Your task to perform on an android device: turn notification dots on Image 0: 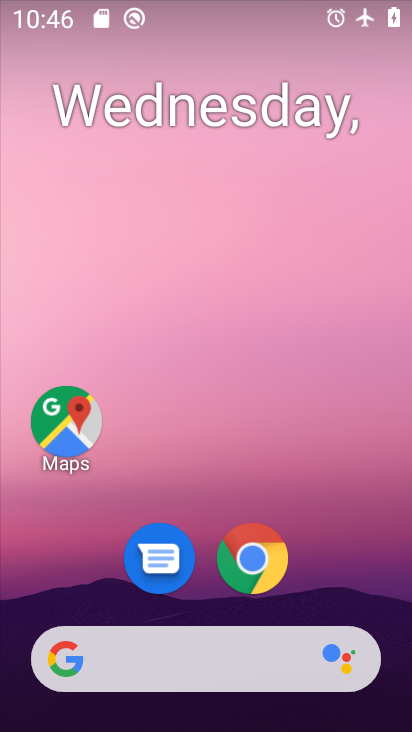
Step 0: drag from (356, 568) to (346, 119)
Your task to perform on an android device: turn notification dots on Image 1: 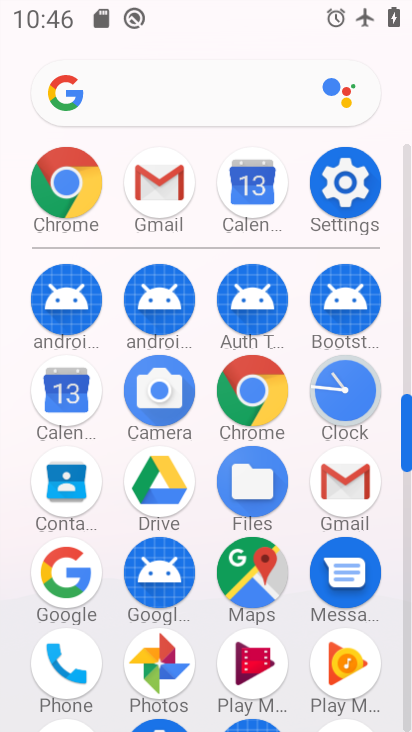
Step 1: click (365, 213)
Your task to perform on an android device: turn notification dots on Image 2: 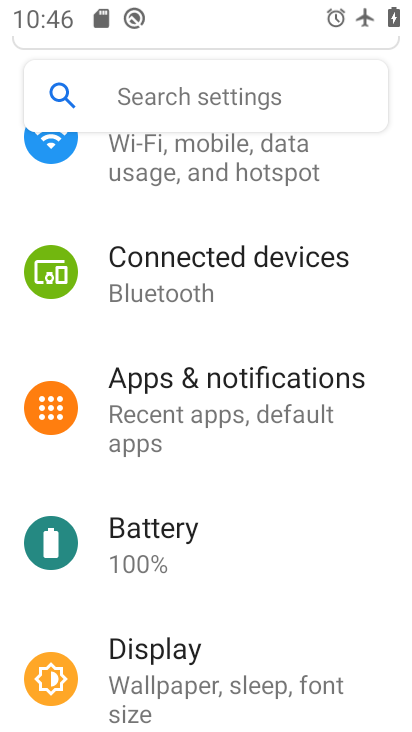
Step 2: drag from (378, 439) to (380, 340)
Your task to perform on an android device: turn notification dots on Image 3: 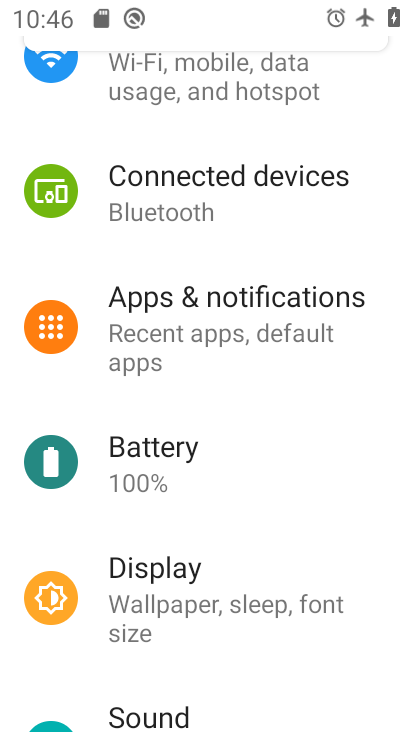
Step 3: drag from (338, 474) to (340, 287)
Your task to perform on an android device: turn notification dots on Image 4: 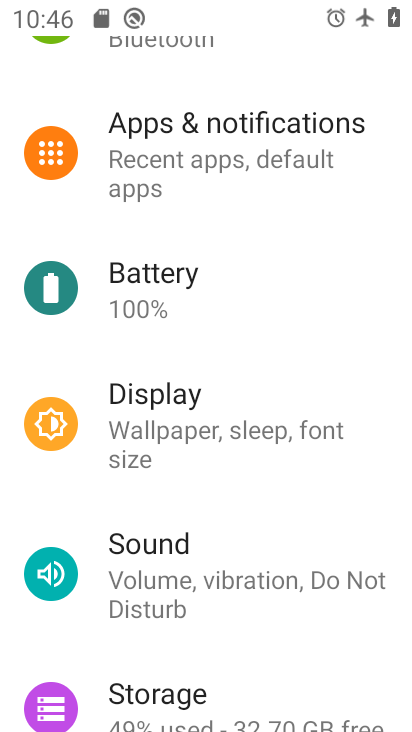
Step 4: drag from (354, 482) to (355, 313)
Your task to perform on an android device: turn notification dots on Image 5: 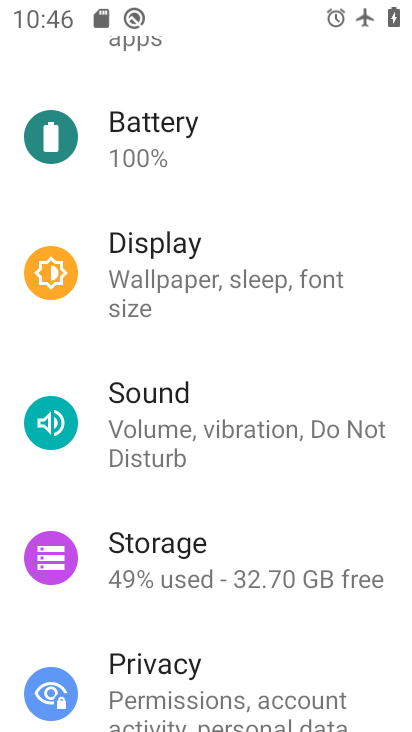
Step 5: drag from (349, 219) to (348, 341)
Your task to perform on an android device: turn notification dots on Image 6: 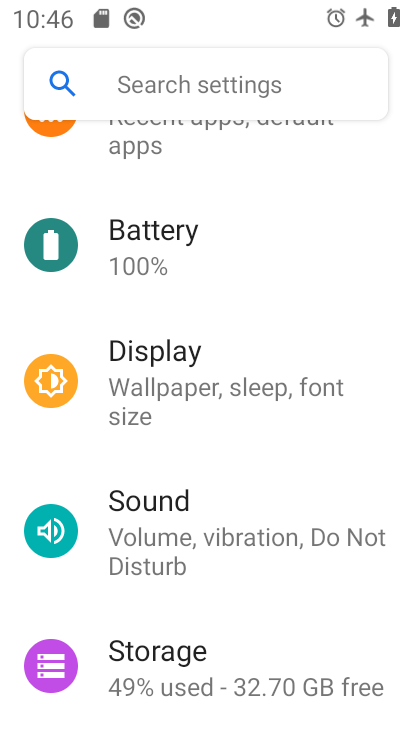
Step 6: drag from (353, 208) to (357, 368)
Your task to perform on an android device: turn notification dots on Image 7: 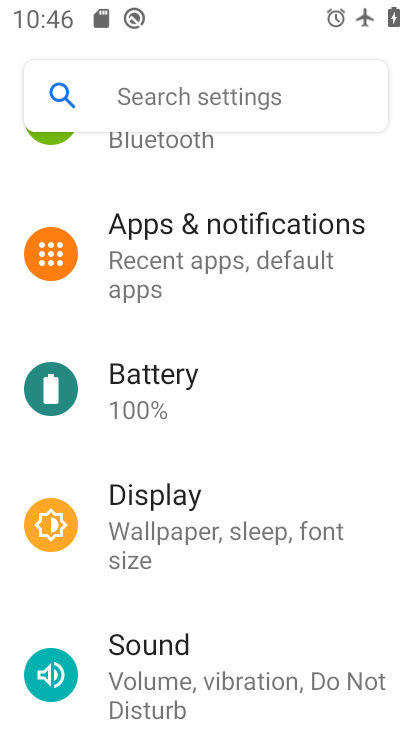
Step 7: drag from (357, 254) to (360, 424)
Your task to perform on an android device: turn notification dots on Image 8: 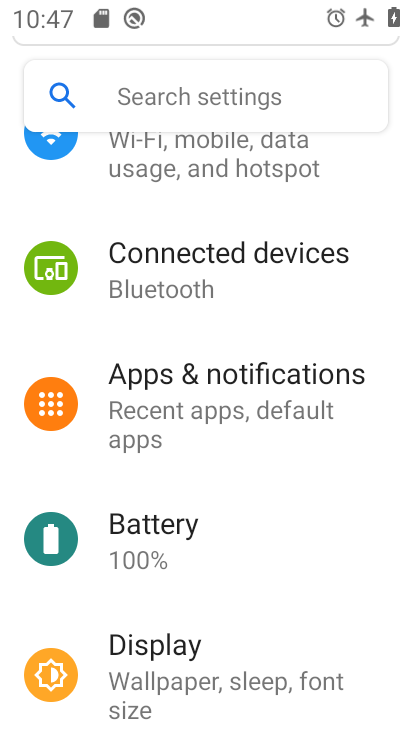
Step 8: drag from (378, 236) to (380, 367)
Your task to perform on an android device: turn notification dots on Image 9: 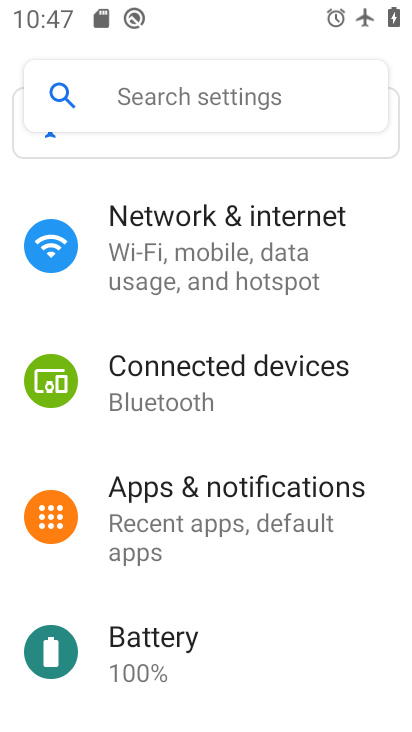
Step 9: click (307, 502)
Your task to perform on an android device: turn notification dots on Image 10: 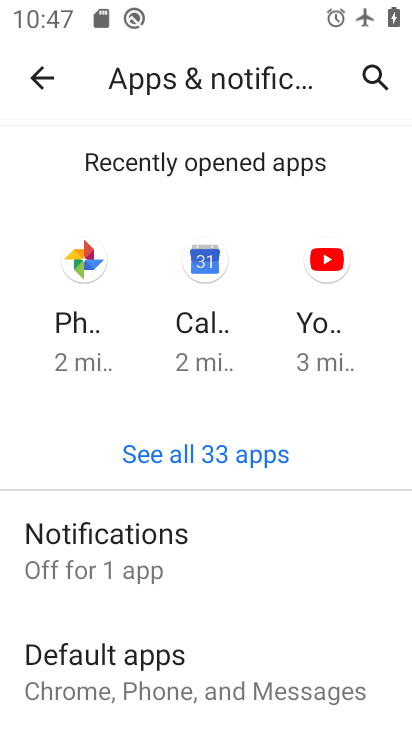
Step 10: drag from (314, 562) to (315, 456)
Your task to perform on an android device: turn notification dots on Image 11: 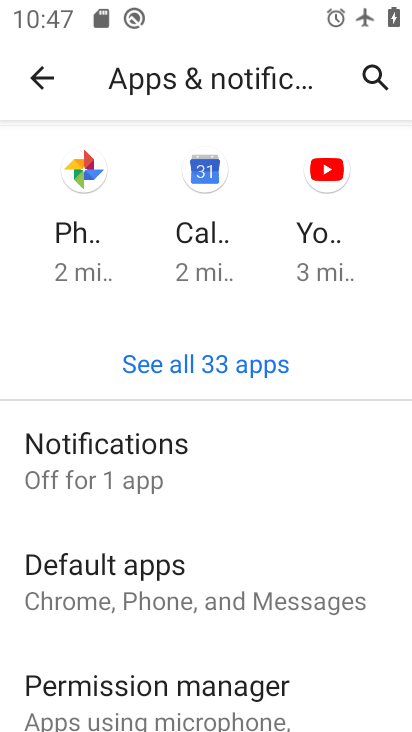
Step 11: drag from (310, 585) to (312, 452)
Your task to perform on an android device: turn notification dots on Image 12: 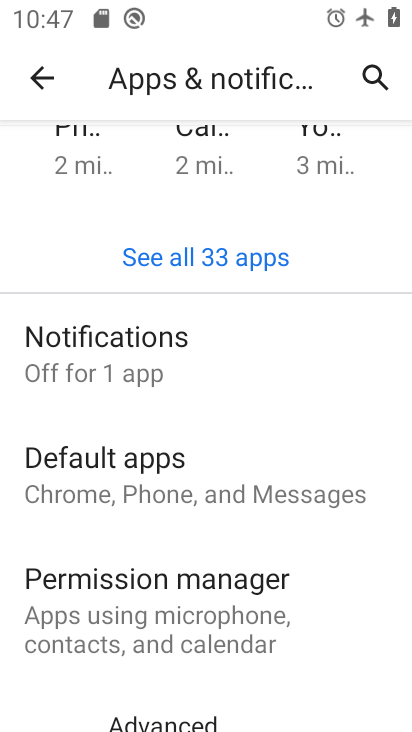
Step 12: drag from (329, 587) to (329, 477)
Your task to perform on an android device: turn notification dots on Image 13: 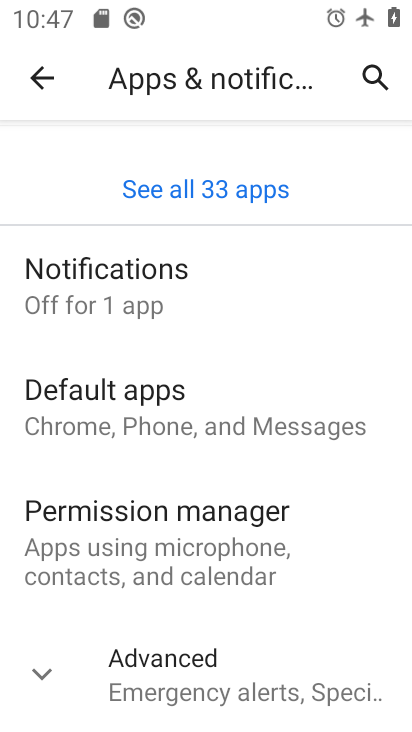
Step 13: click (181, 292)
Your task to perform on an android device: turn notification dots on Image 14: 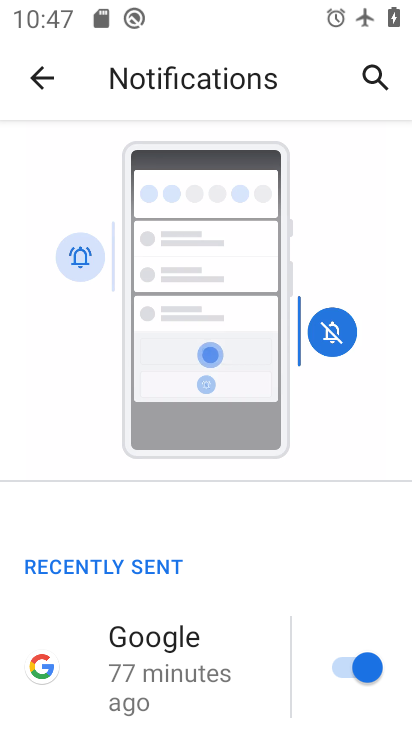
Step 14: drag from (308, 529) to (319, 412)
Your task to perform on an android device: turn notification dots on Image 15: 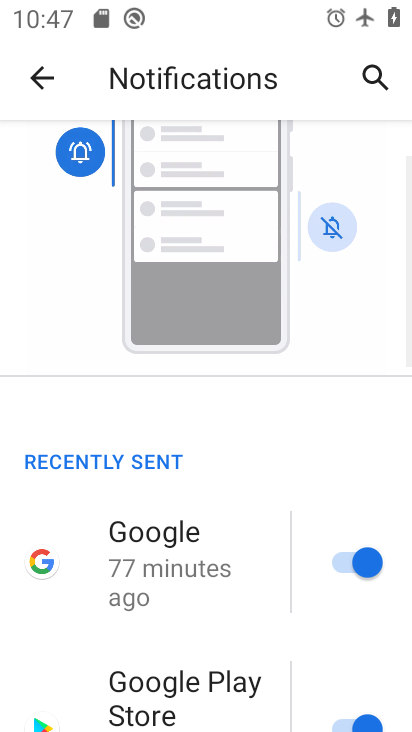
Step 15: drag from (254, 544) to (251, 392)
Your task to perform on an android device: turn notification dots on Image 16: 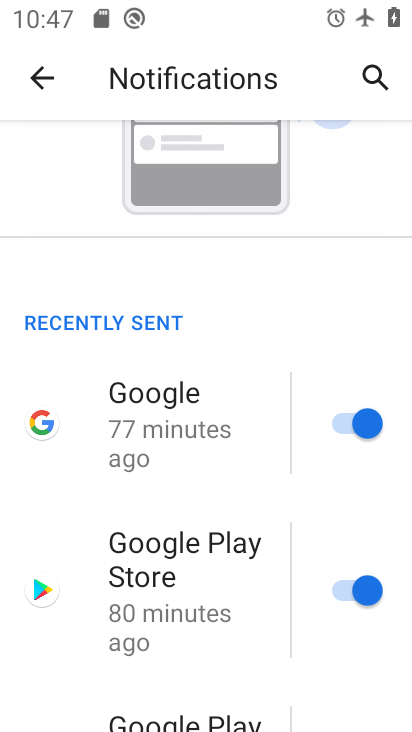
Step 16: drag from (254, 603) to (251, 436)
Your task to perform on an android device: turn notification dots on Image 17: 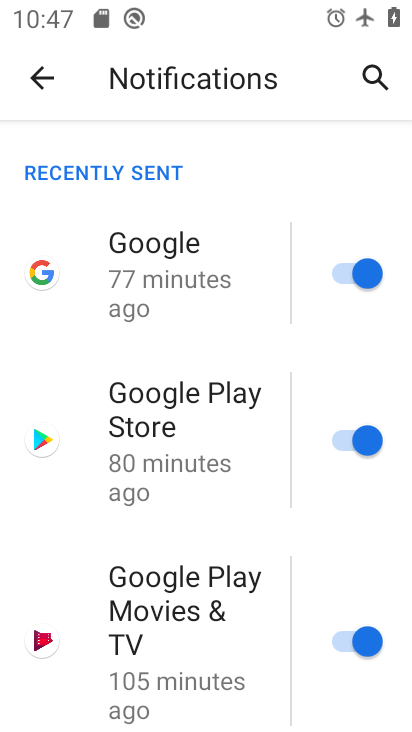
Step 17: drag from (268, 627) to (275, 499)
Your task to perform on an android device: turn notification dots on Image 18: 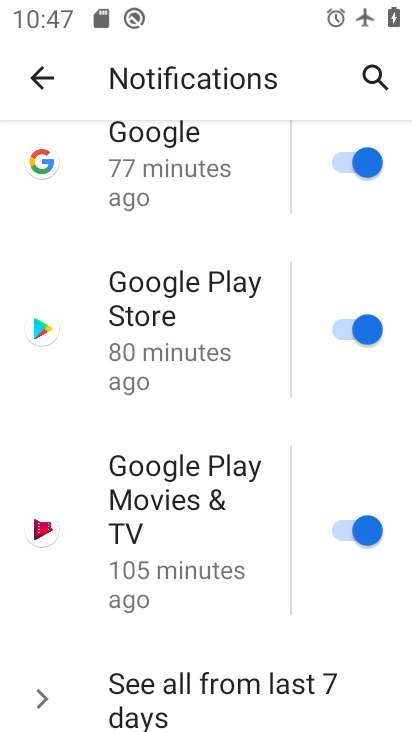
Step 18: drag from (248, 636) to (251, 517)
Your task to perform on an android device: turn notification dots on Image 19: 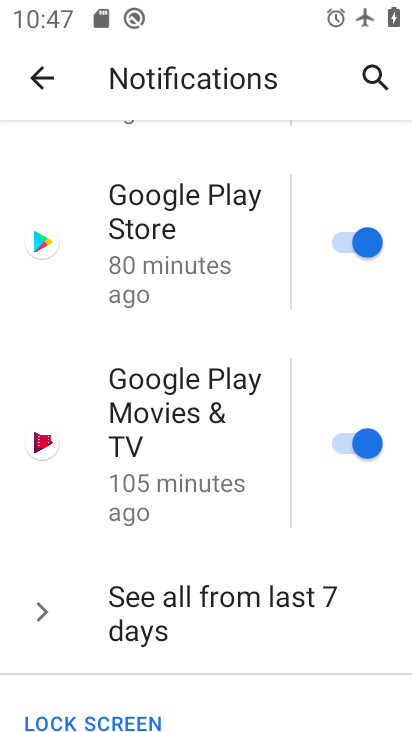
Step 19: drag from (251, 639) to (256, 523)
Your task to perform on an android device: turn notification dots on Image 20: 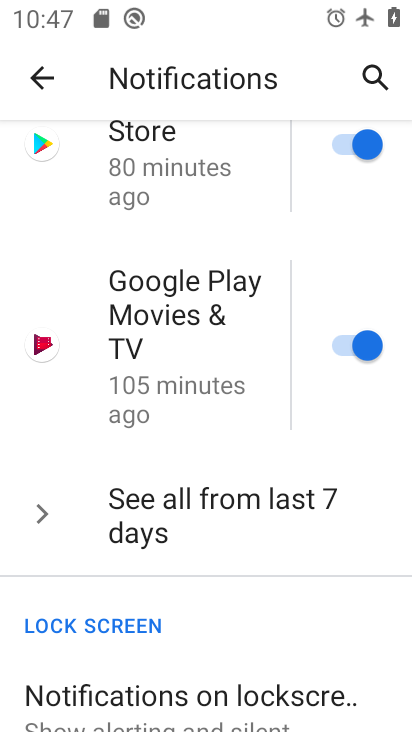
Step 20: drag from (271, 644) to (267, 469)
Your task to perform on an android device: turn notification dots on Image 21: 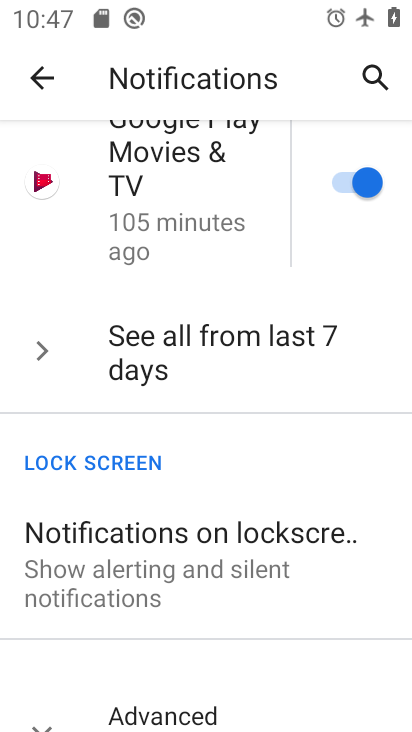
Step 21: drag from (304, 636) to (299, 481)
Your task to perform on an android device: turn notification dots on Image 22: 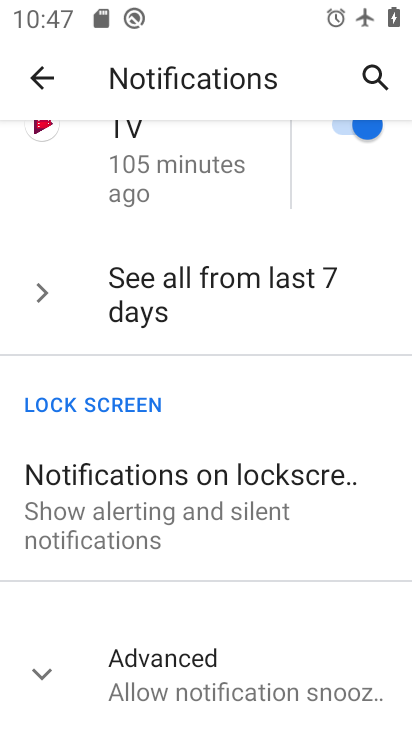
Step 22: click (306, 683)
Your task to perform on an android device: turn notification dots on Image 23: 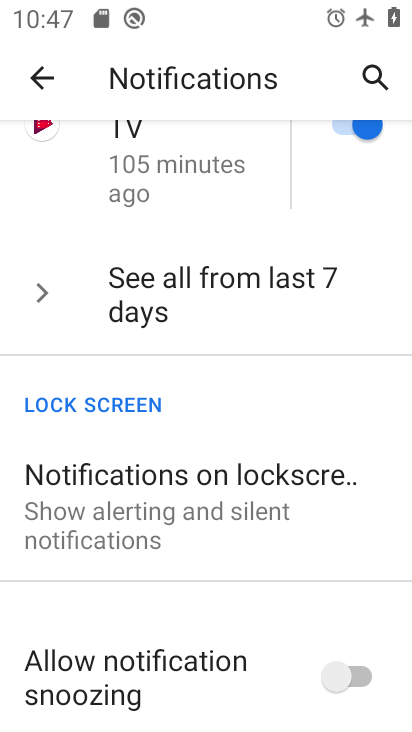
Step 23: task complete